Your task to perform on an android device: Go to Reddit.com Image 0: 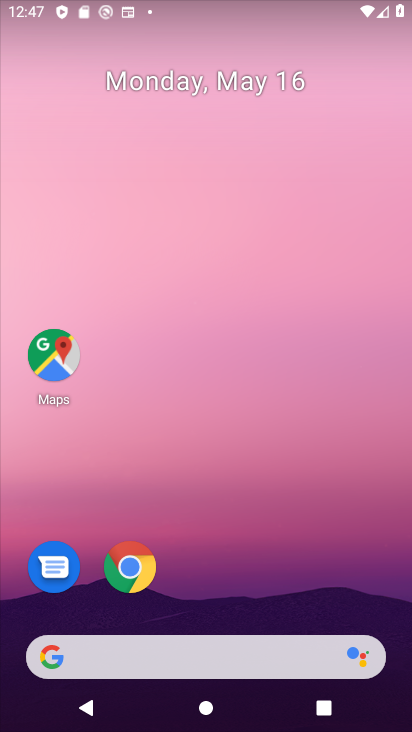
Step 0: drag from (231, 606) to (312, 16)
Your task to perform on an android device: Go to Reddit.com Image 1: 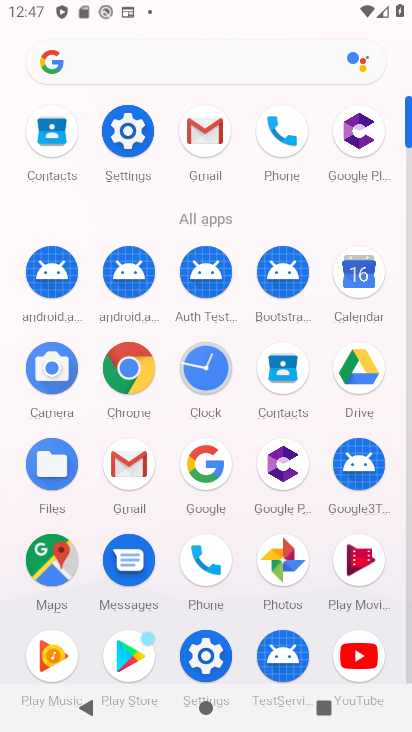
Step 1: click (127, 355)
Your task to perform on an android device: Go to Reddit.com Image 2: 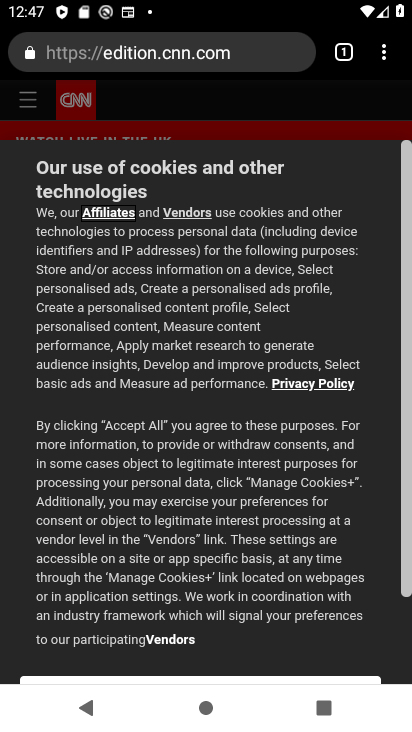
Step 2: click (221, 57)
Your task to perform on an android device: Go to Reddit.com Image 3: 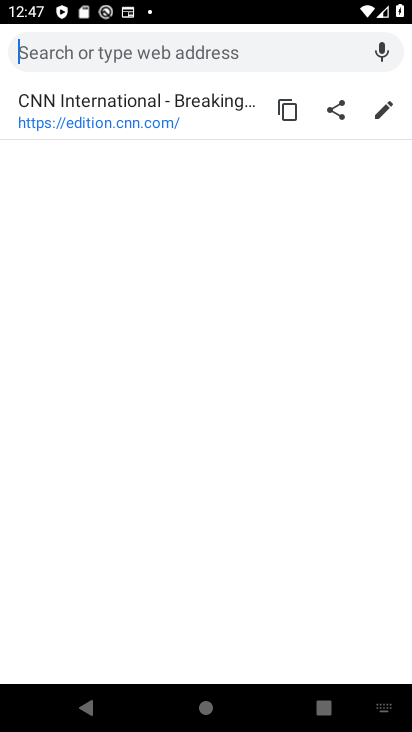
Step 3: type "reddit.com"
Your task to perform on an android device: Go to Reddit.com Image 4: 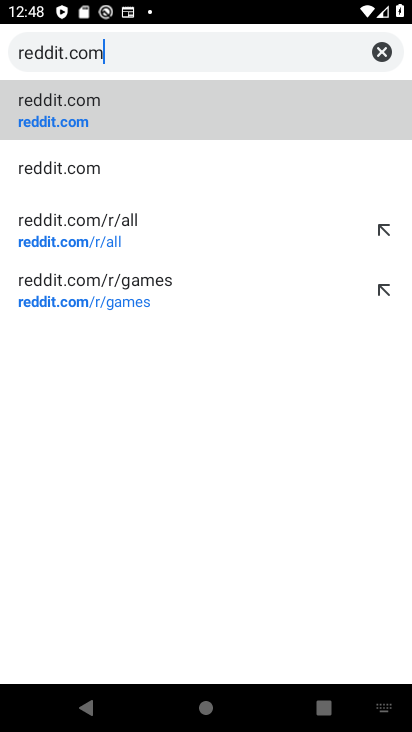
Step 4: click (47, 120)
Your task to perform on an android device: Go to Reddit.com Image 5: 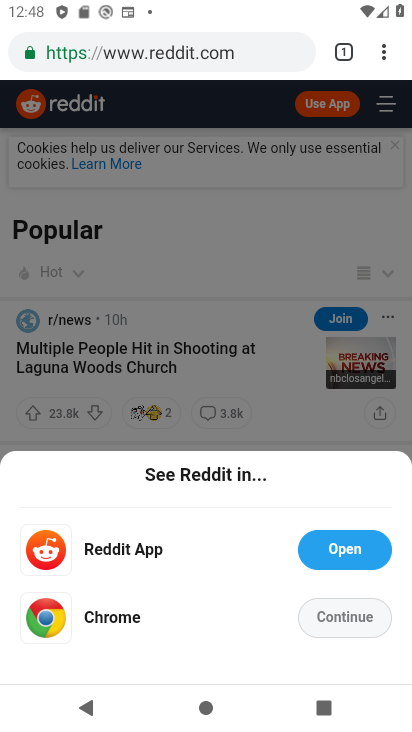
Step 5: task complete